Your task to perform on an android device: What's the weather? Image 0: 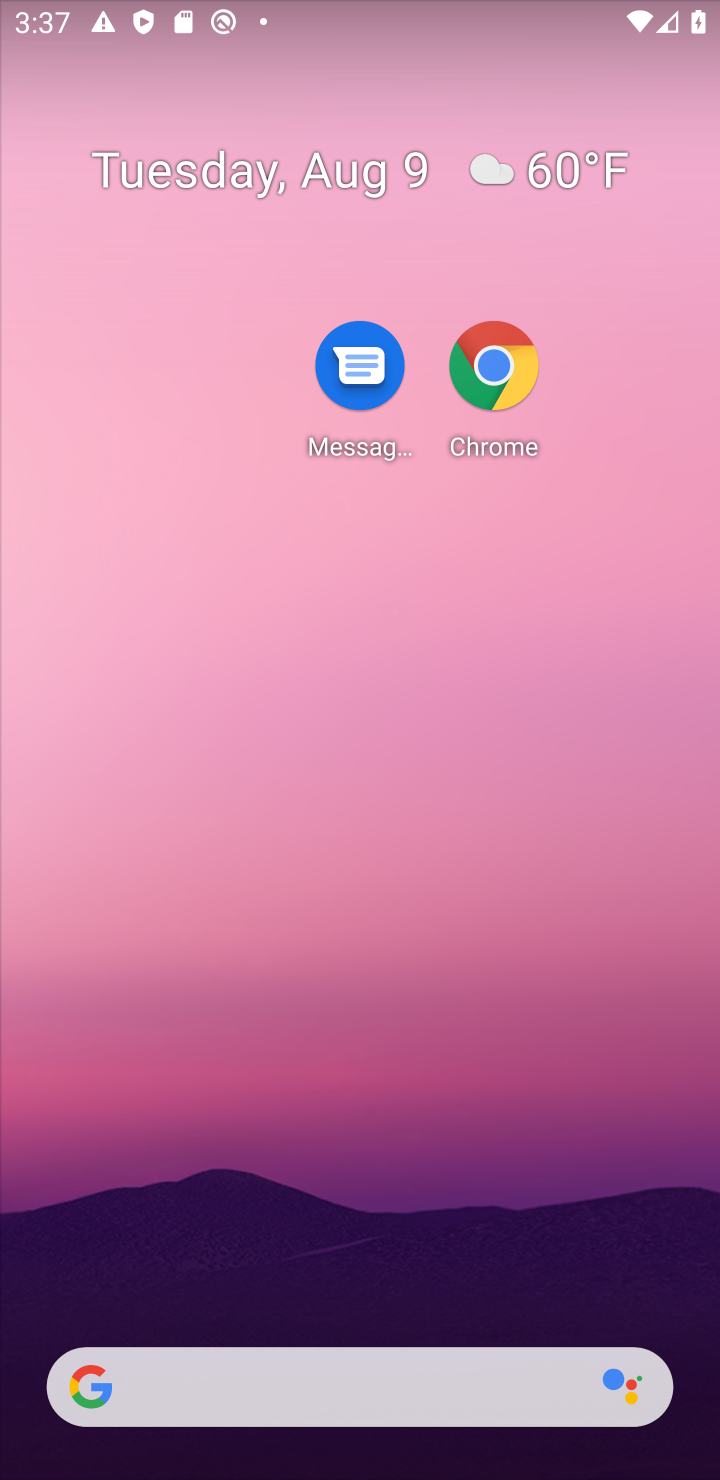
Step 0: drag from (232, 781) to (321, 244)
Your task to perform on an android device: What's the weather? Image 1: 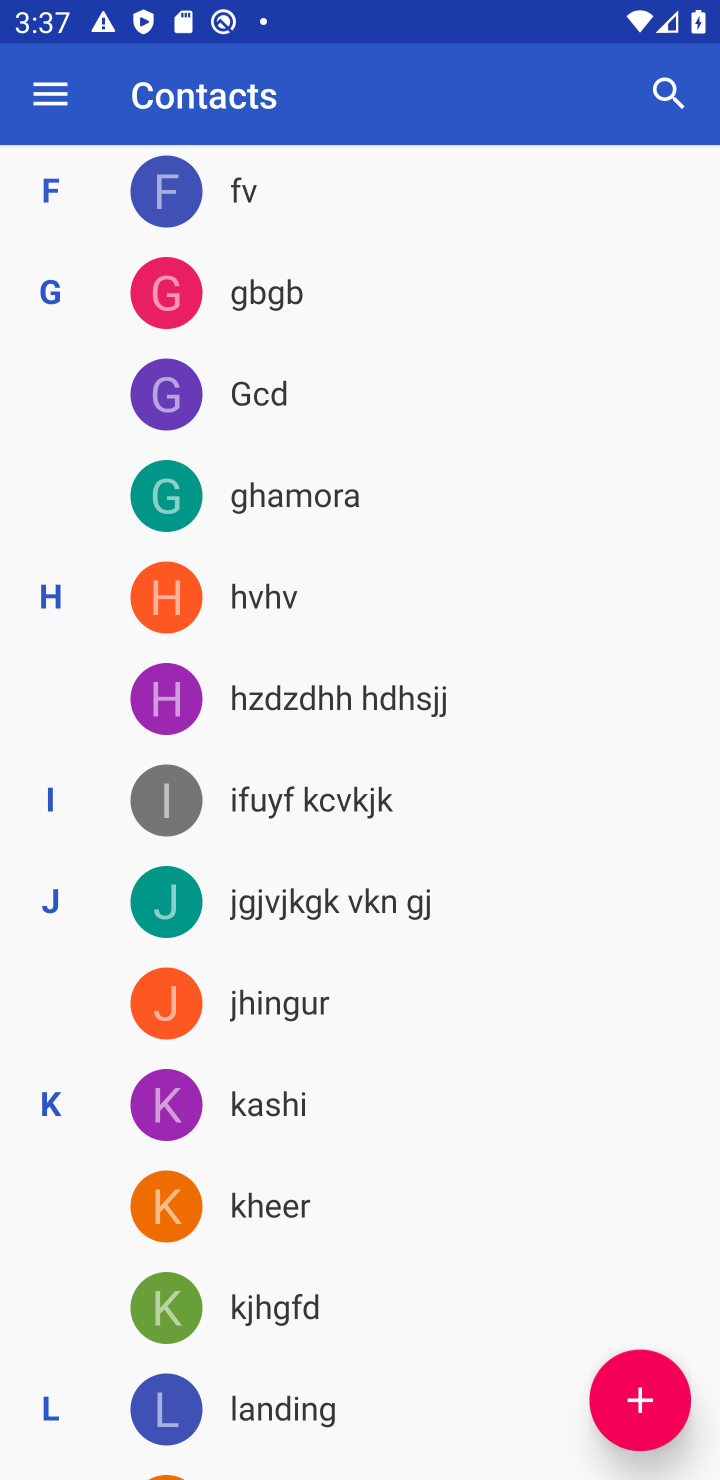
Step 1: press home button
Your task to perform on an android device: What's the weather? Image 2: 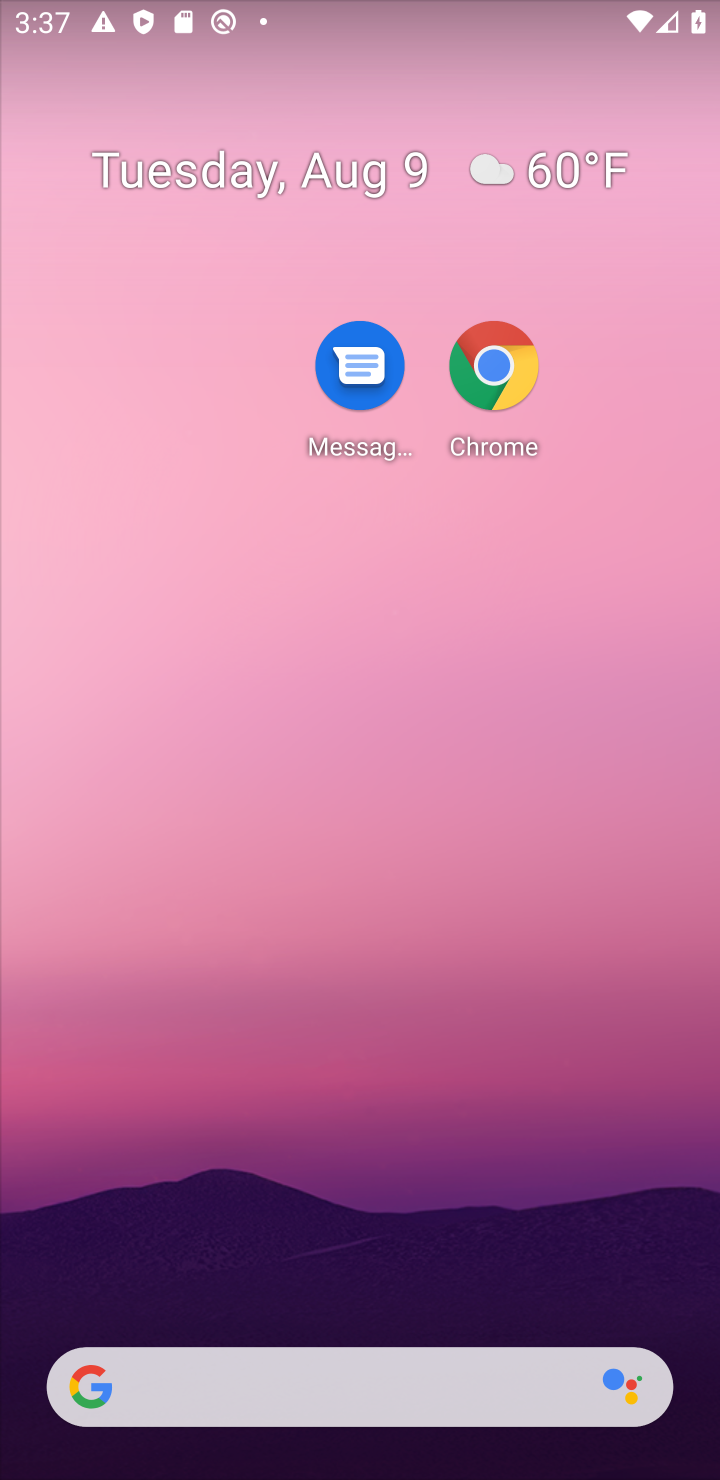
Step 2: drag from (332, 1054) to (354, 444)
Your task to perform on an android device: What's the weather? Image 3: 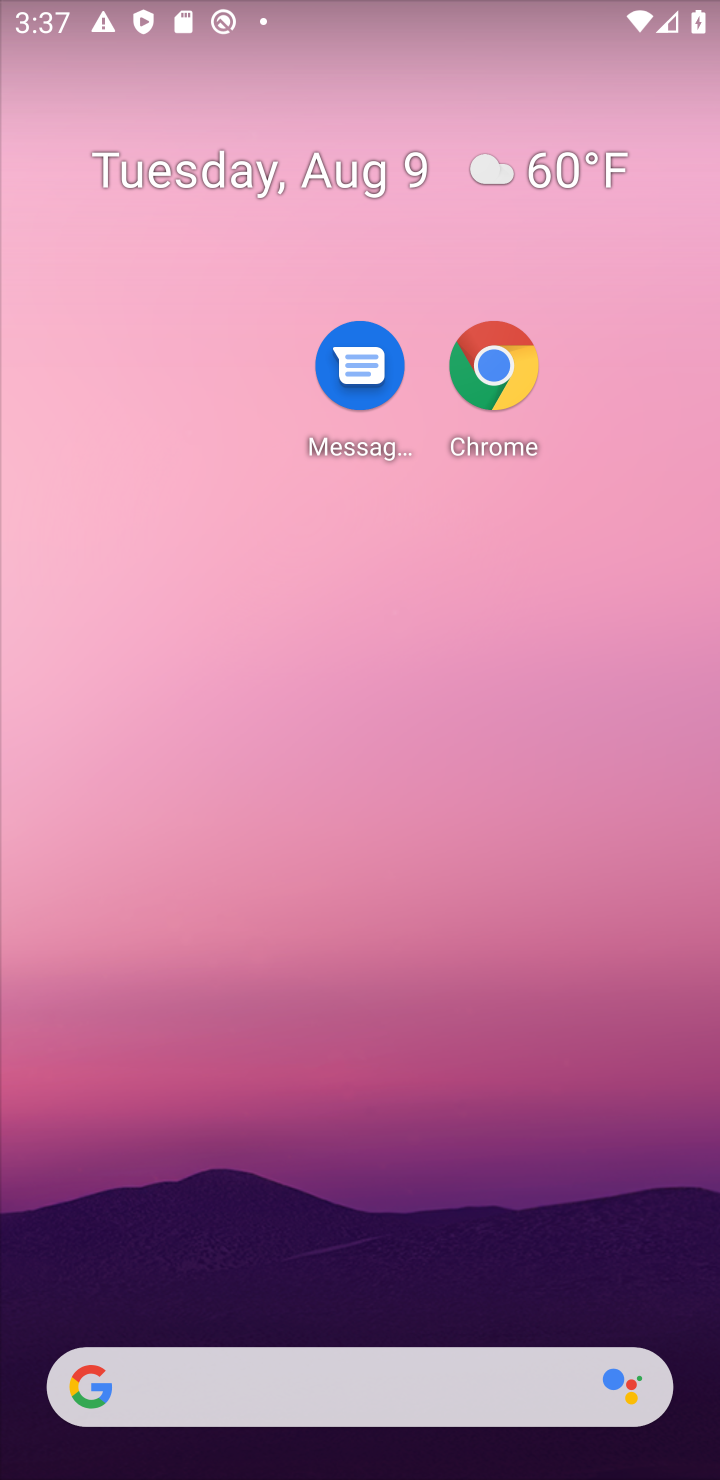
Step 3: drag from (372, 612) to (443, 88)
Your task to perform on an android device: What's the weather? Image 4: 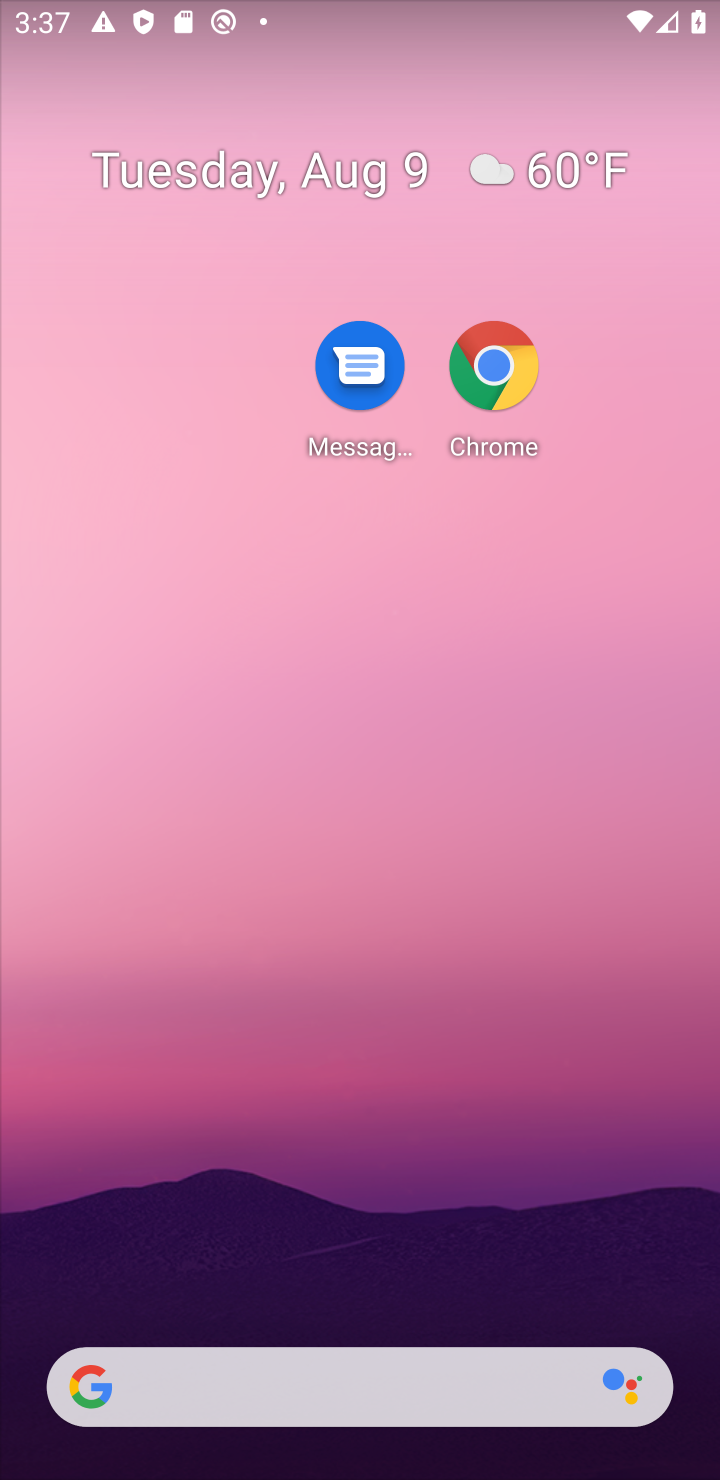
Step 4: drag from (369, 756) to (369, 455)
Your task to perform on an android device: What's the weather? Image 5: 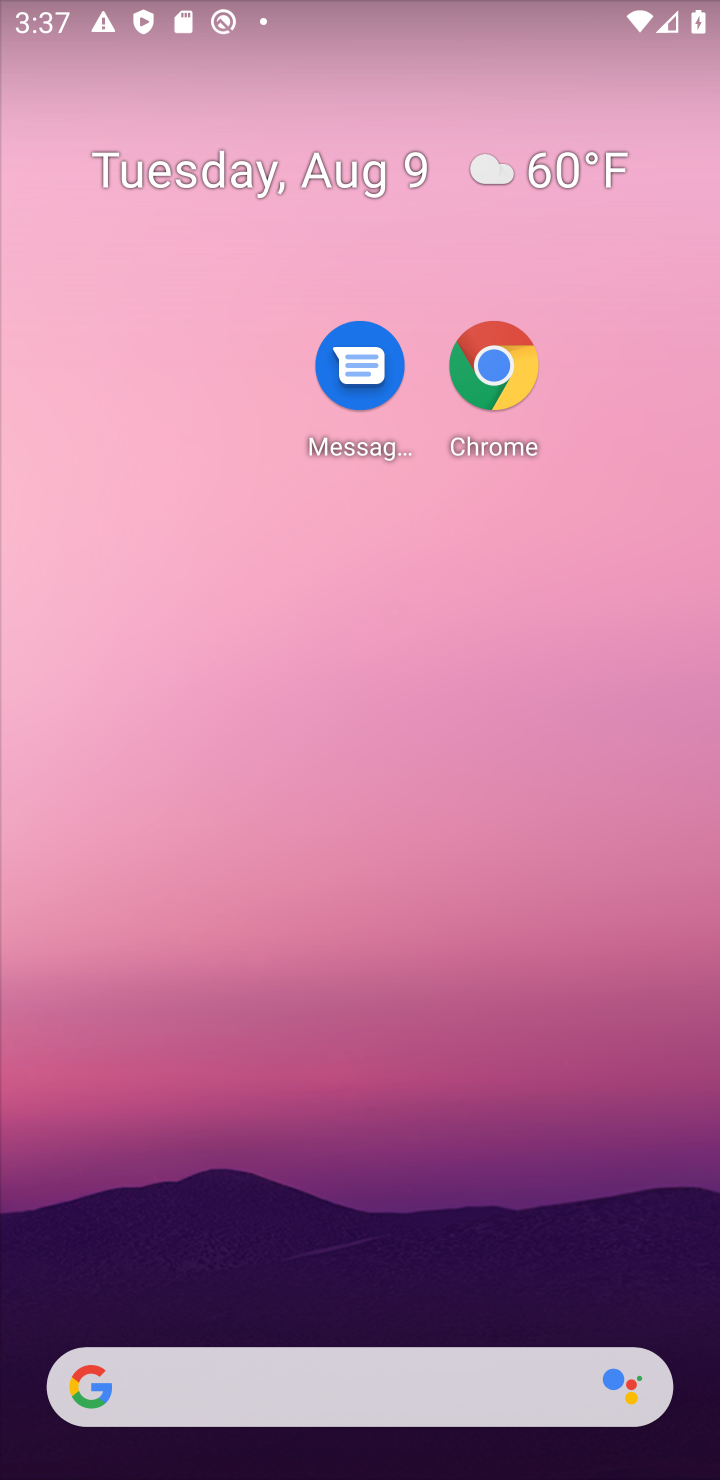
Step 5: drag from (280, 1271) to (319, 418)
Your task to perform on an android device: What's the weather? Image 6: 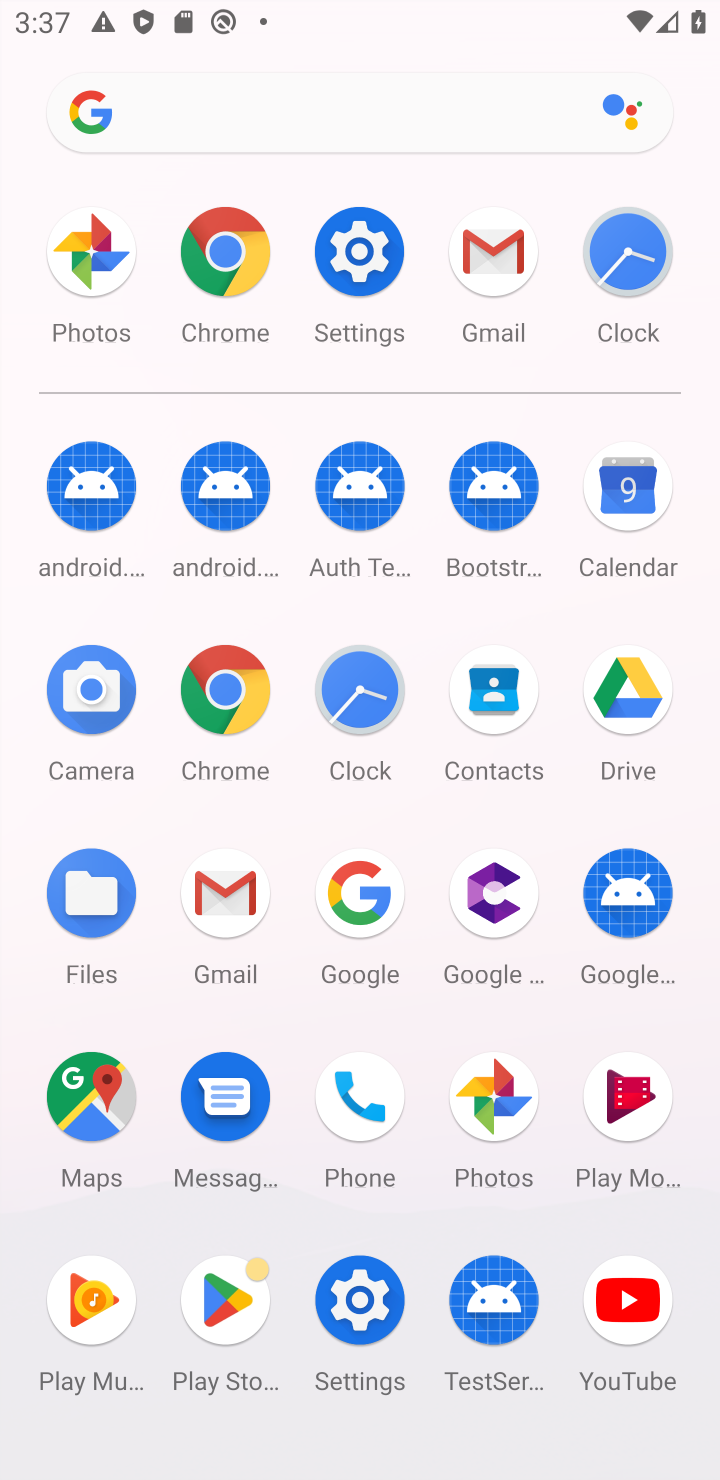
Step 6: click (239, 679)
Your task to perform on an android device: What's the weather? Image 7: 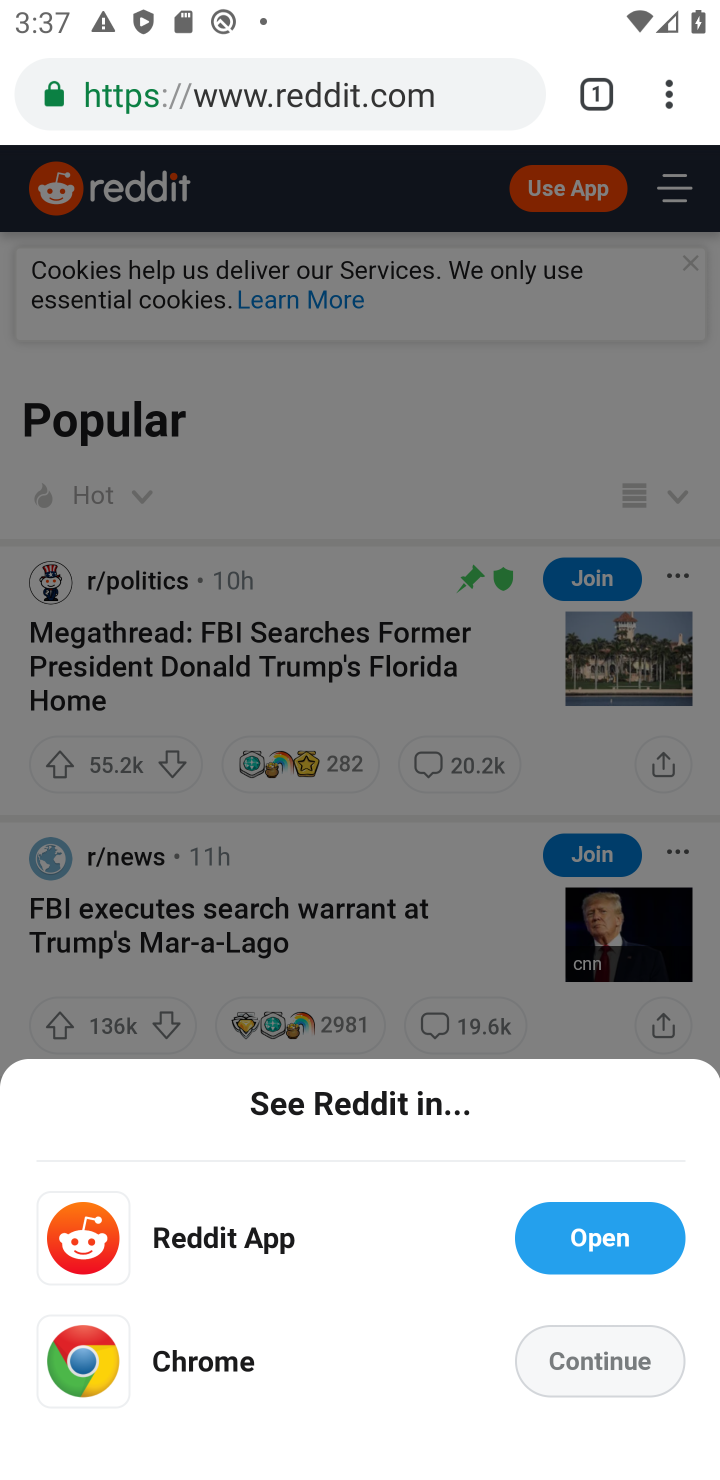
Step 7: click (678, 94)
Your task to perform on an android device: What's the weather? Image 8: 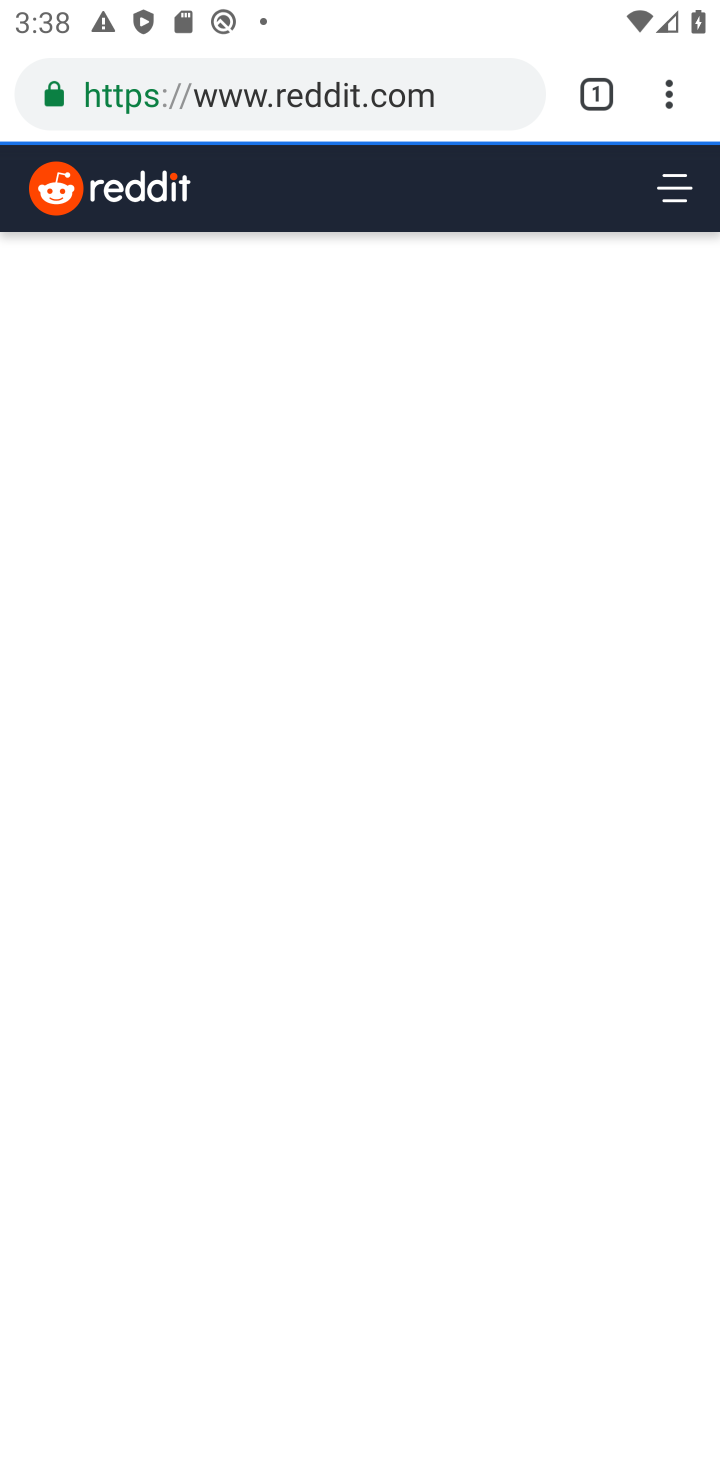
Step 8: click (663, 64)
Your task to perform on an android device: What's the weather? Image 9: 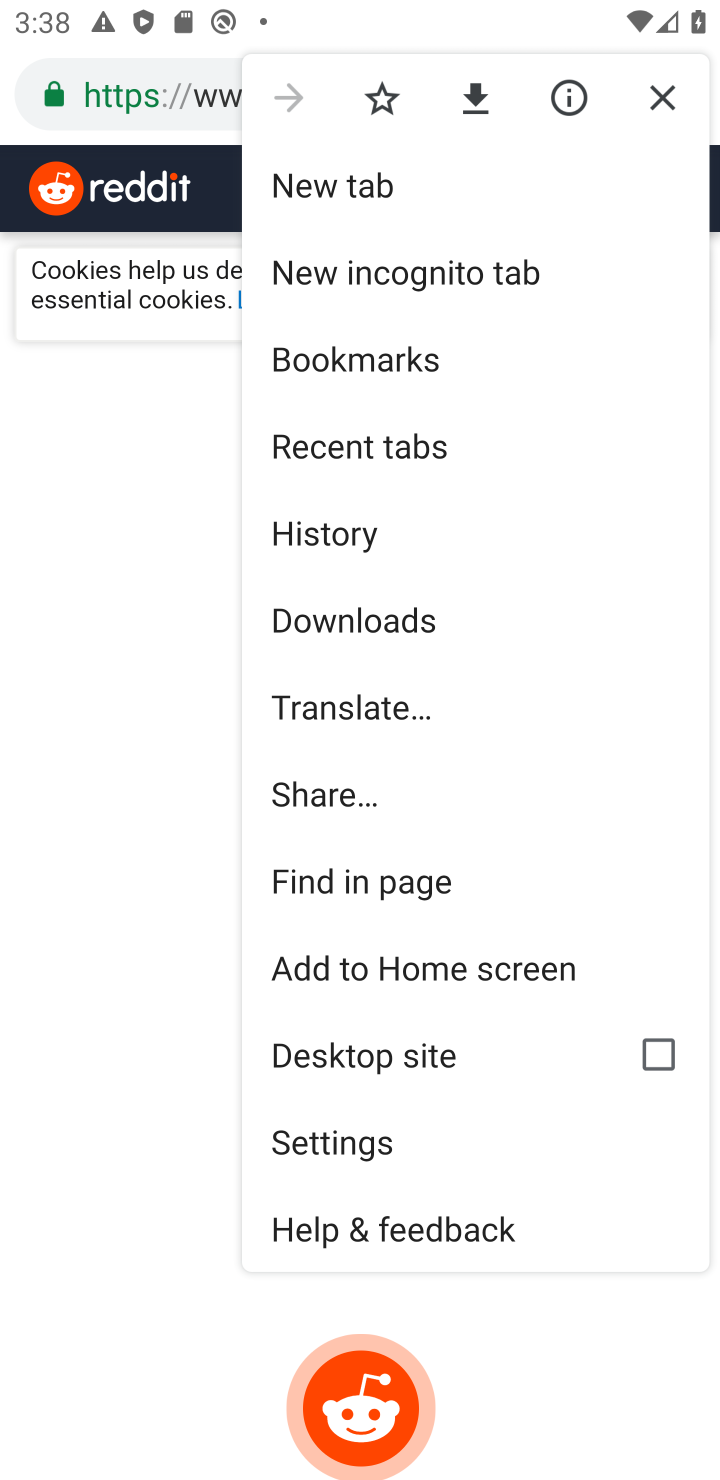
Step 9: click (392, 193)
Your task to perform on an android device: What's the weather? Image 10: 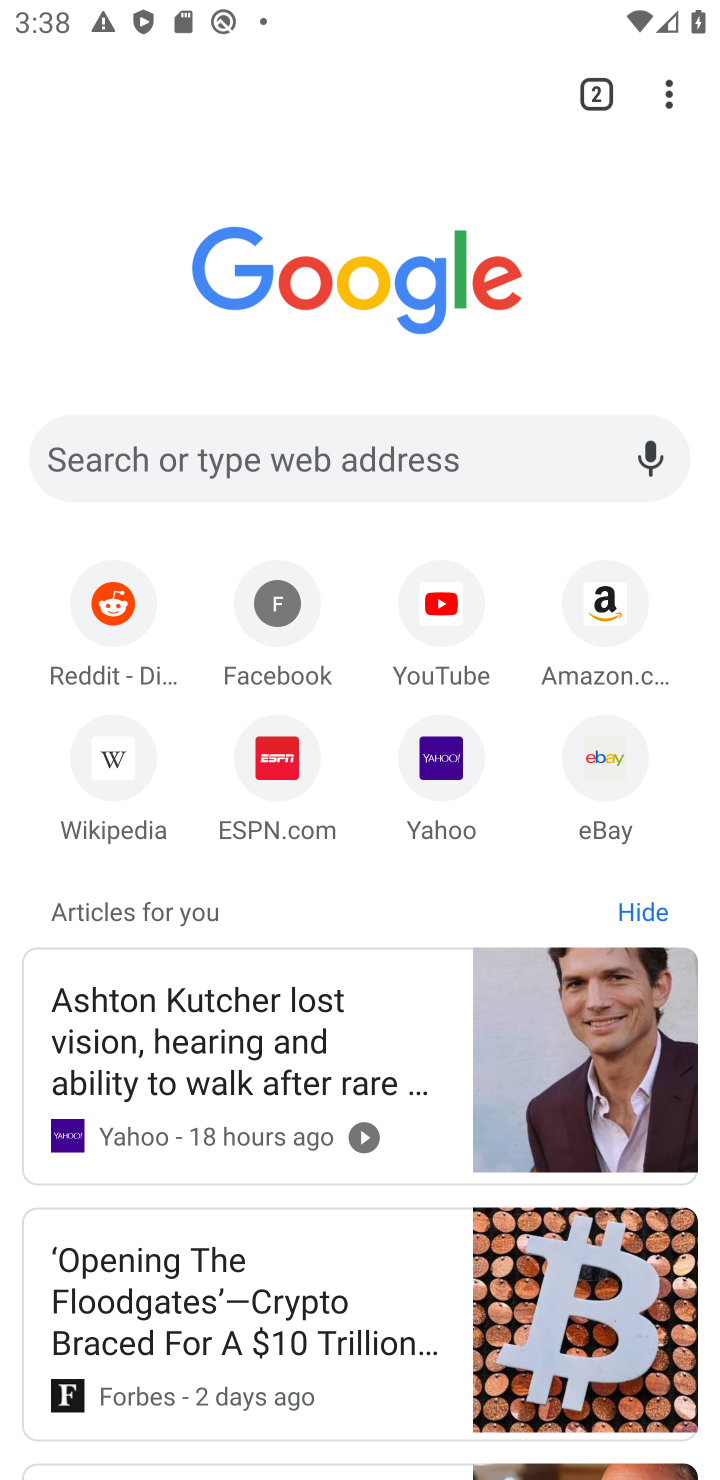
Step 10: click (432, 440)
Your task to perform on an android device: What's the weather? Image 11: 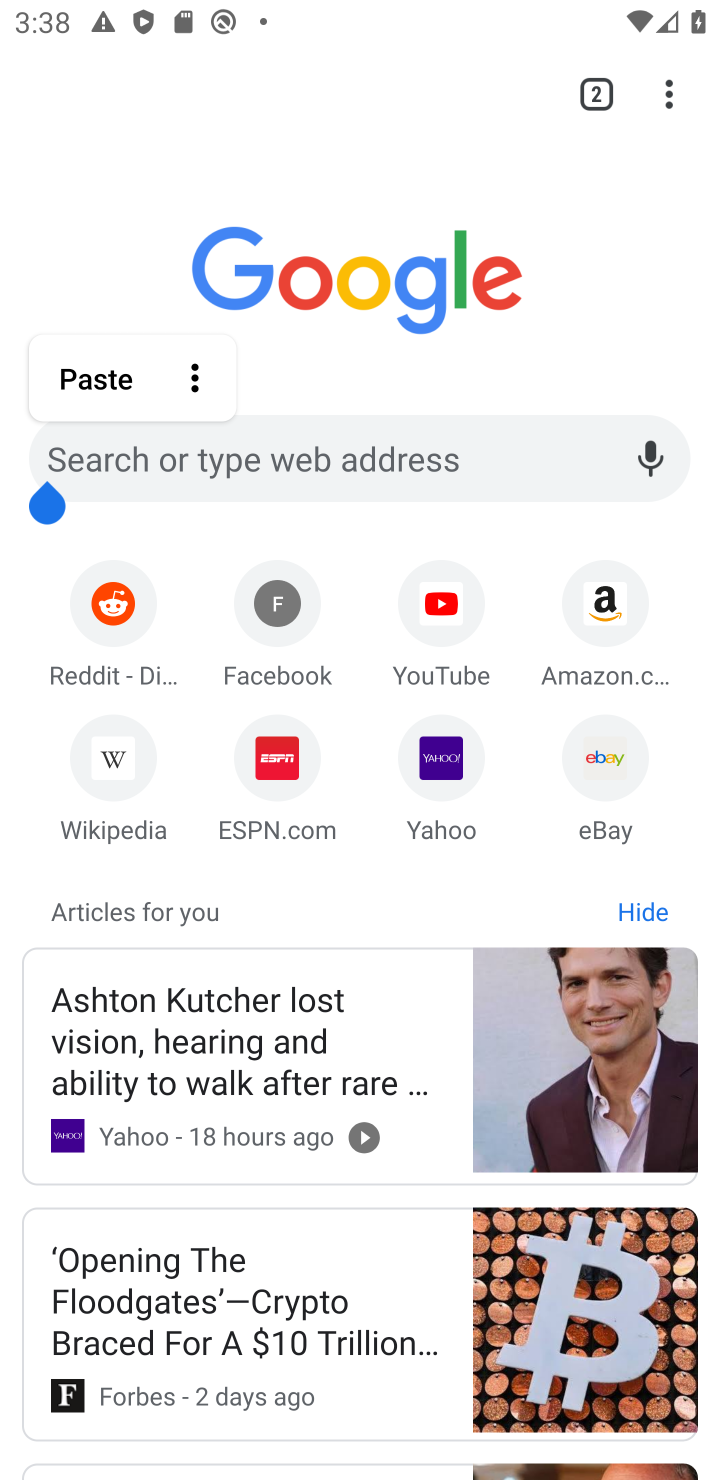
Step 11: type "What's the weather? "
Your task to perform on an android device: What's the weather? Image 12: 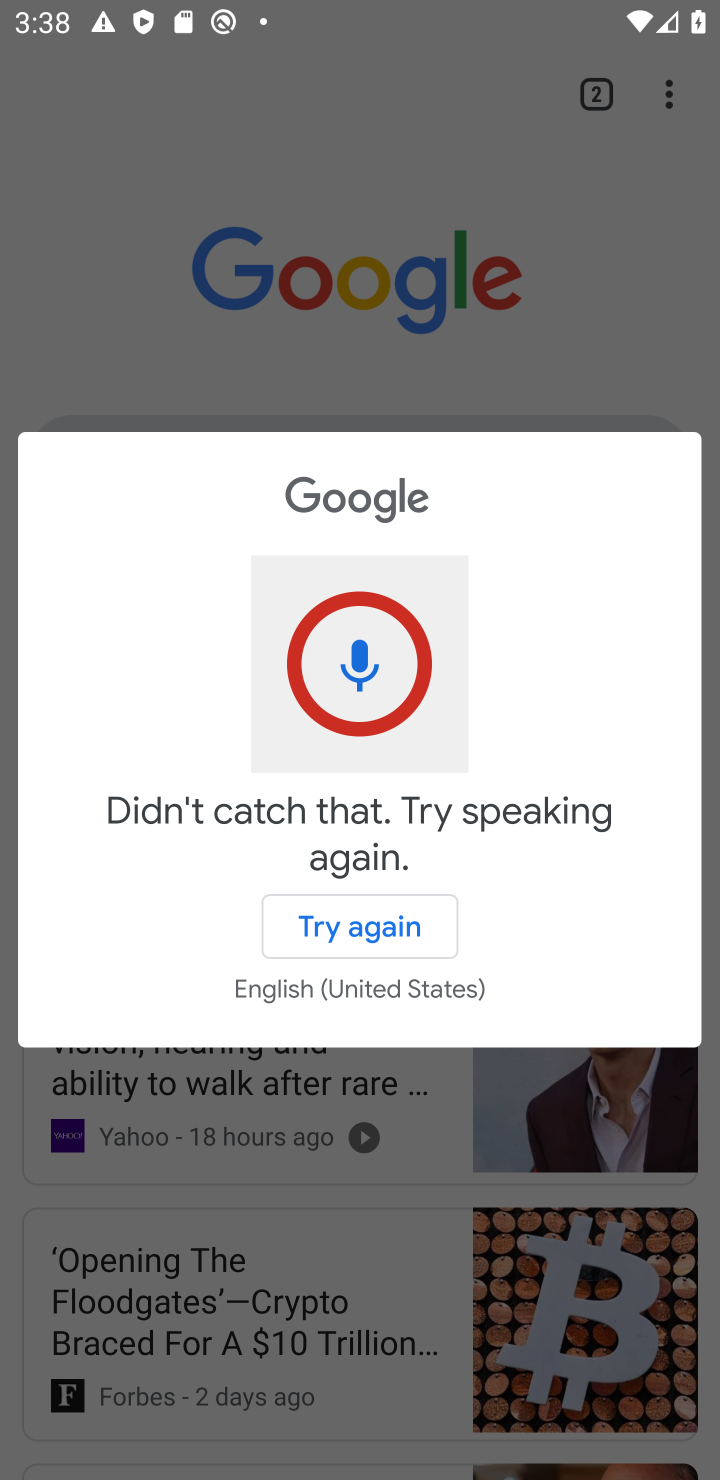
Step 12: click (495, 294)
Your task to perform on an android device: What's the weather? Image 13: 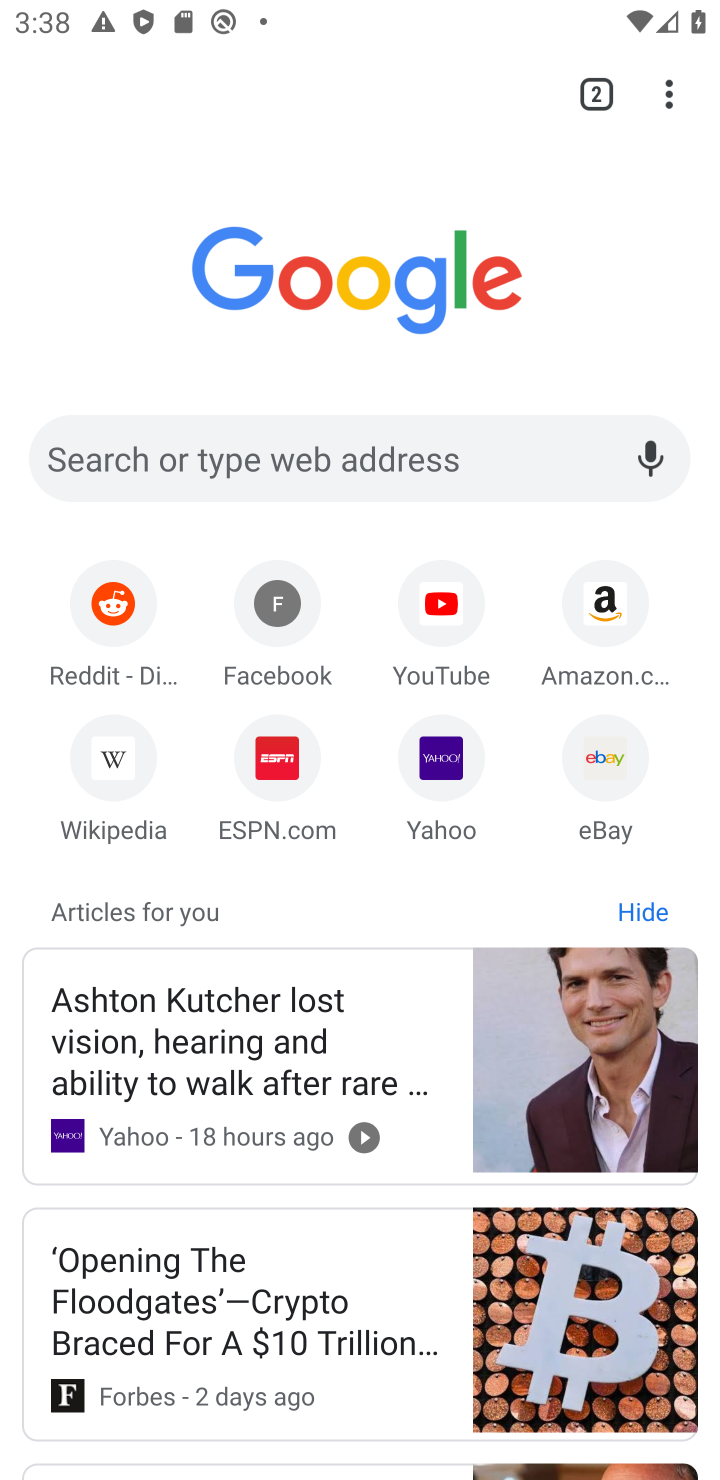
Step 13: click (307, 460)
Your task to perform on an android device: What's the weather? Image 14: 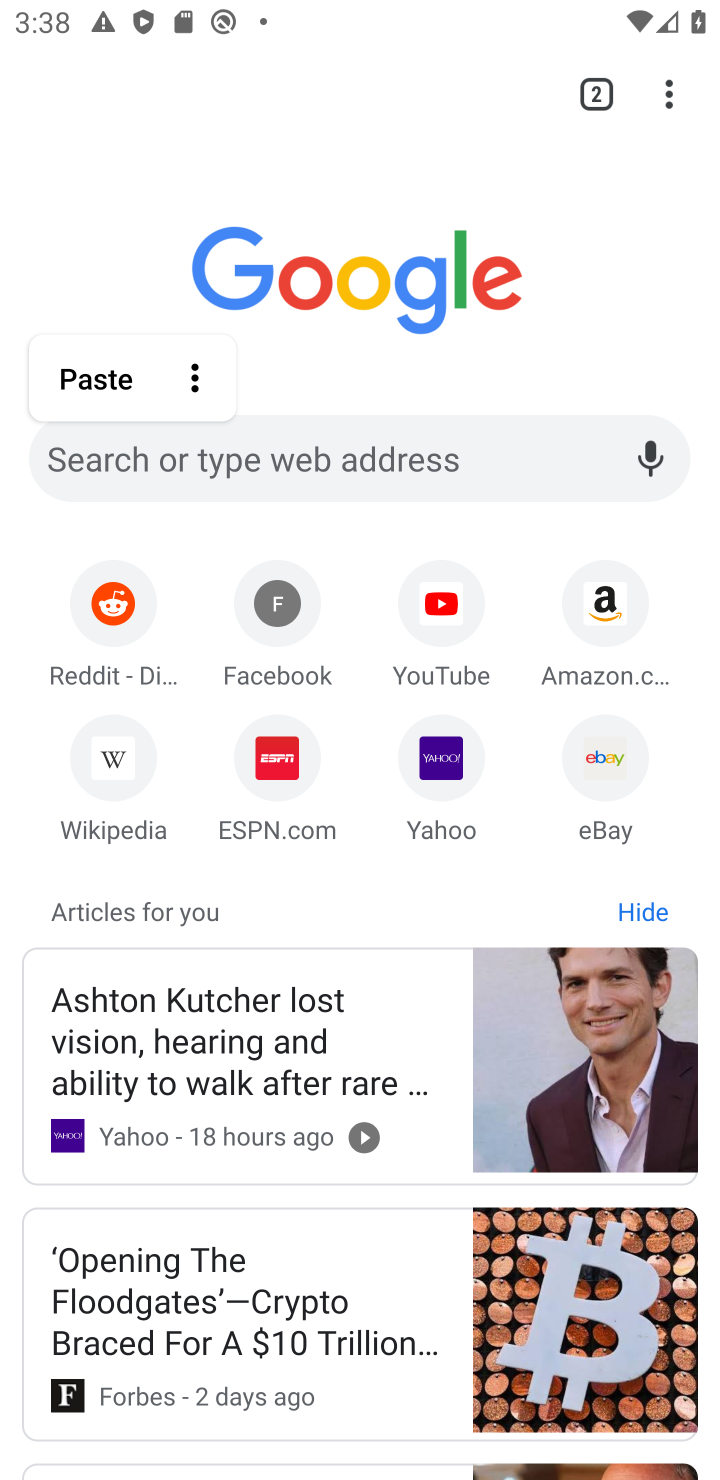
Step 14: click (357, 442)
Your task to perform on an android device: What's the weather? Image 15: 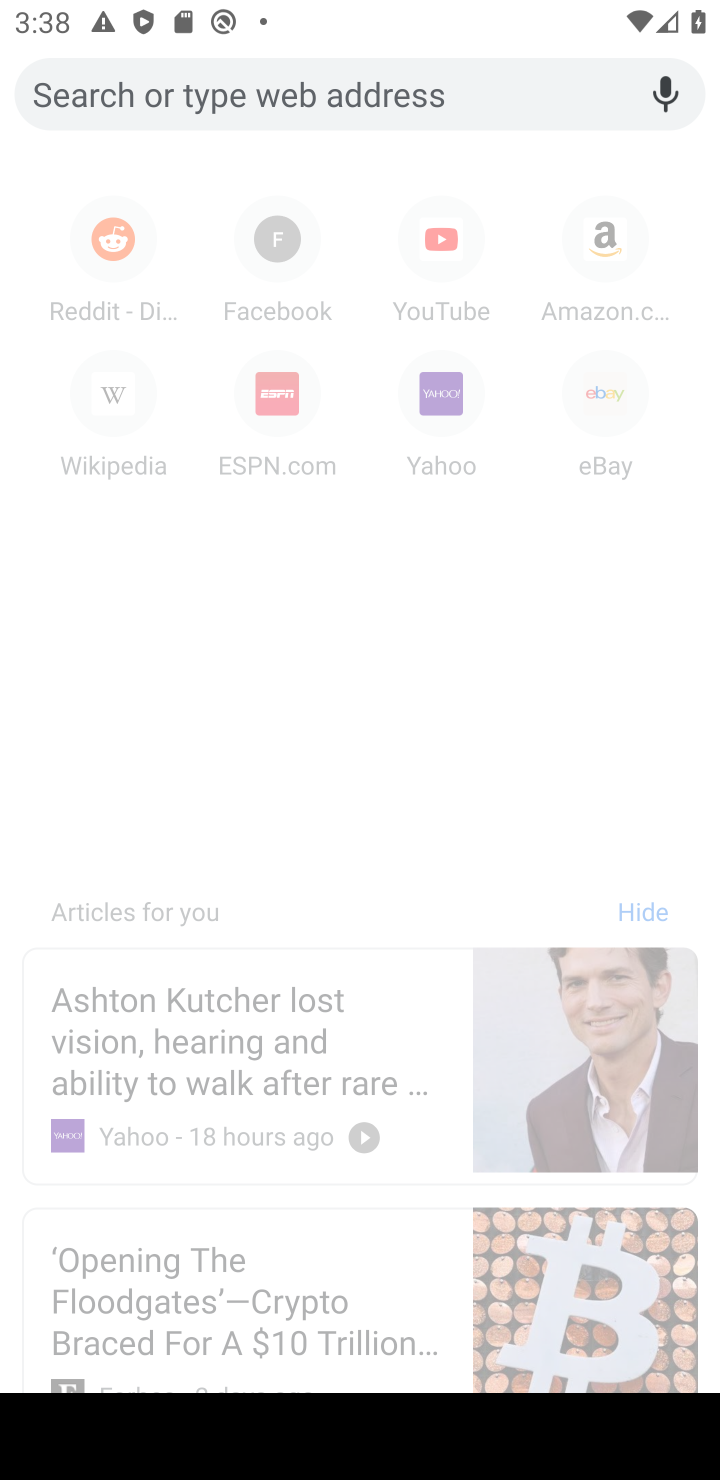
Step 15: type "What's the weather? "
Your task to perform on an android device: What's the weather? Image 16: 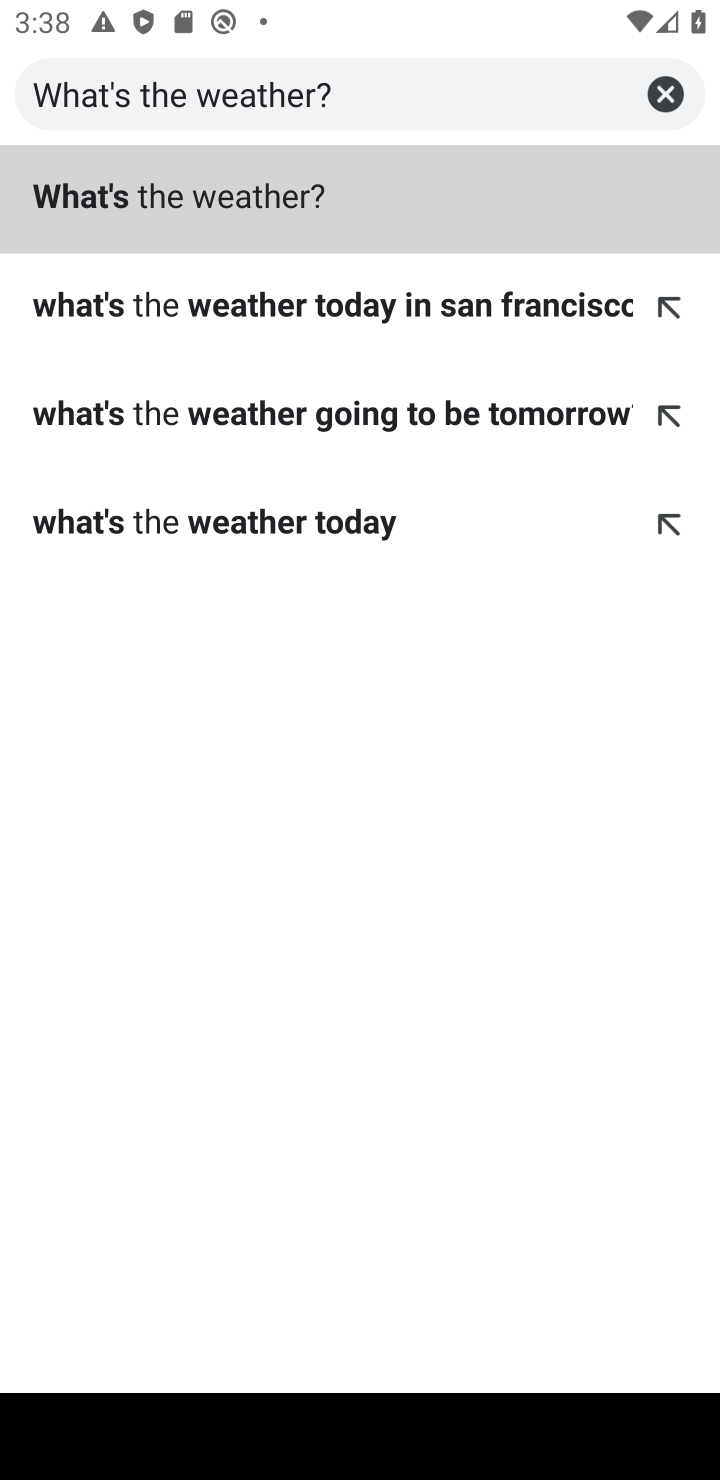
Step 16: click (272, 192)
Your task to perform on an android device: What's the weather? Image 17: 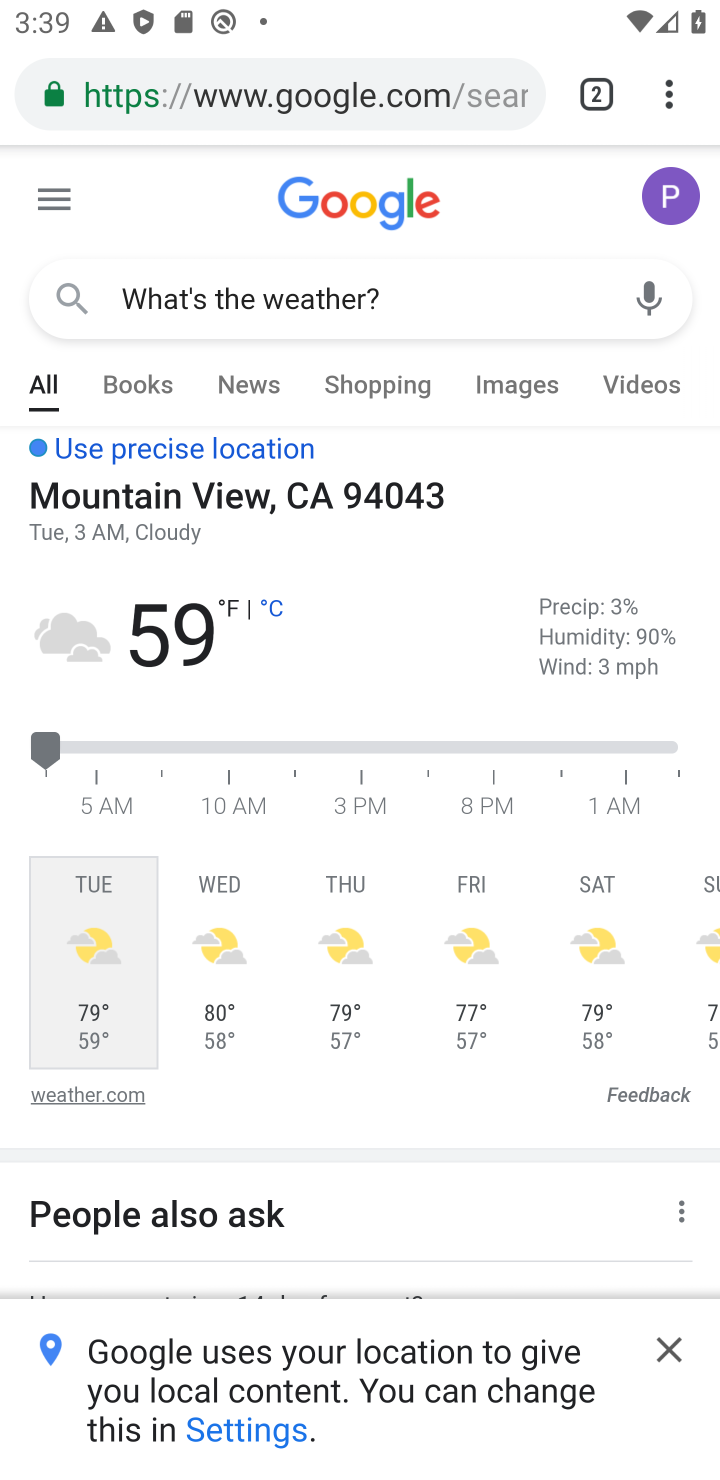
Step 17: task complete